Your task to perform on an android device: check battery use Image 0: 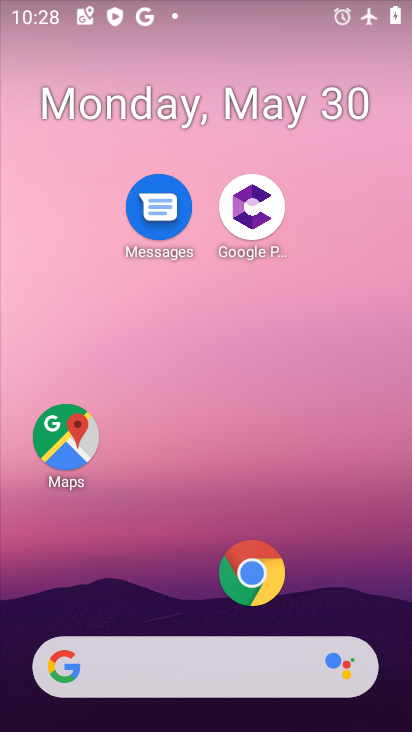
Step 0: drag from (146, 655) to (187, 149)
Your task to perform on an android device: check battery use Image 1: 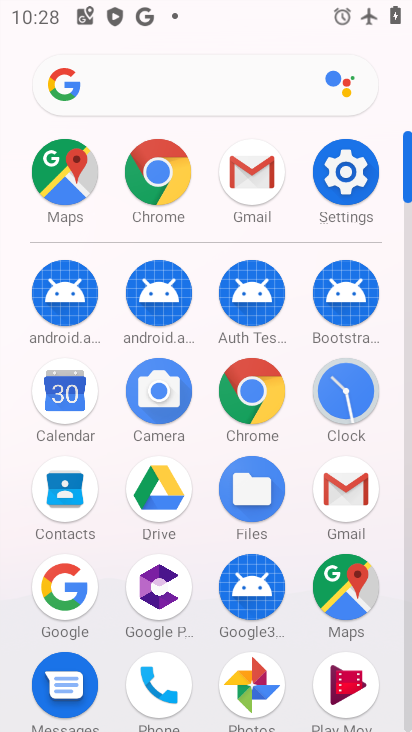
Step 1: click (351, 187)
Your task to perform on an android device: check battery use Image 2: 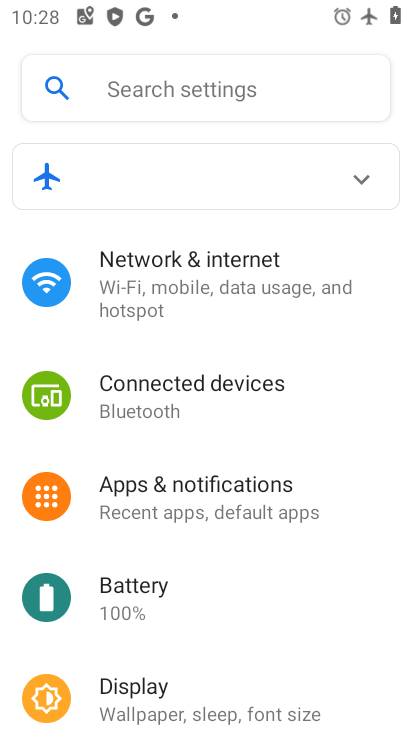
Step 2: click (171, 591)
Your task to perform on an android device: check battery use Image 3: 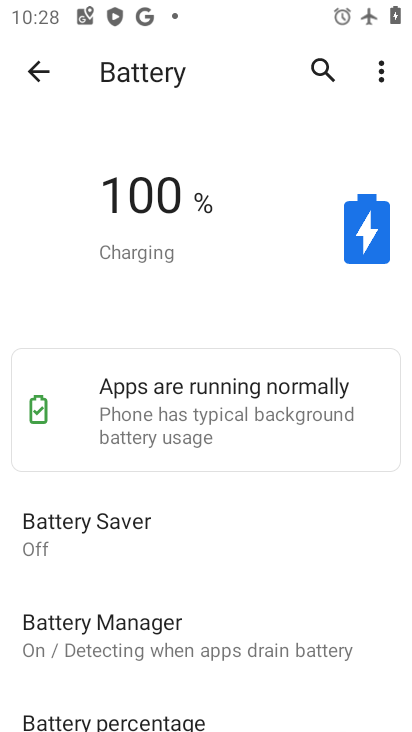
Step 3: task complete